Your task to perform on an android device: open a bookmark in the chrome app Image 0: 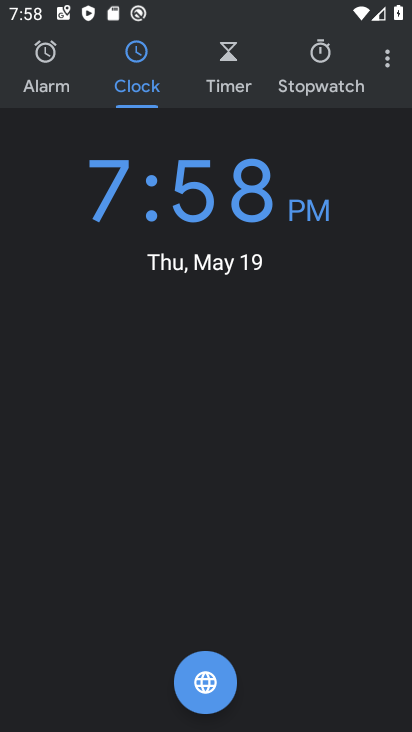
Step 0: press home button
Your task to perform on an android device: open a bookmark in the chrome app Image 1: 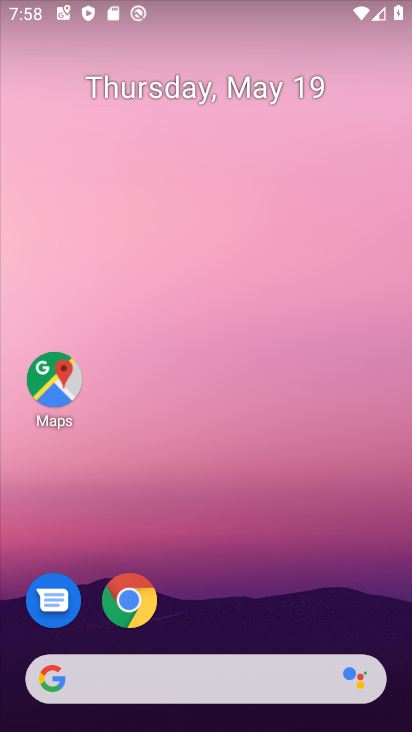
Step 1: click (132, 600)
Your task to perform on an android device: open a bookmark in the chrome app Image 2: 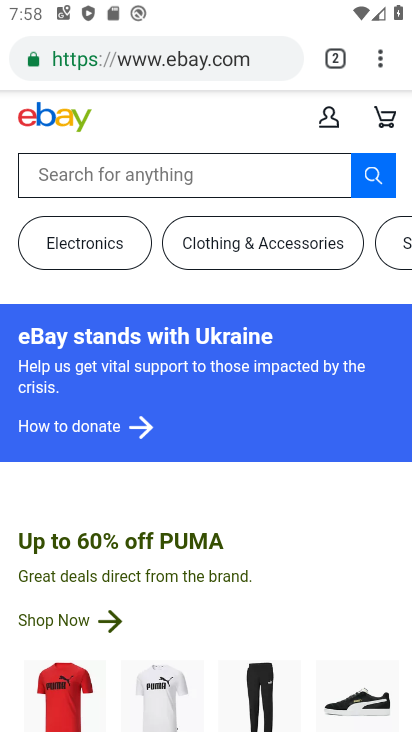
Step 2: click (381, 58)
Your task to perform on an android device: open a bookmark in the chrome app Image 3: 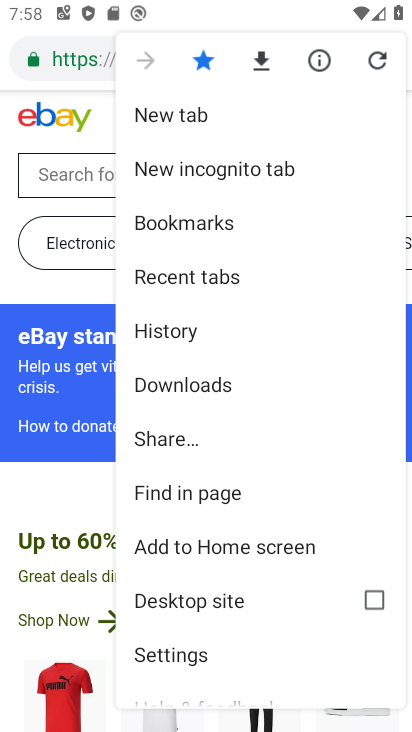
Step 3: click (176, 226)
Your task to perform on an android device: open a bookmark in the chrome app Image 4: 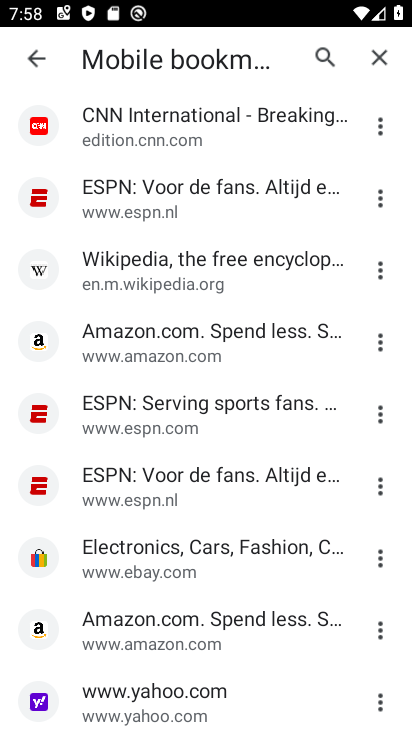
Step 4: click (165, 203)
Your task to perform on an android device: open a bookmark in the chrome app Image 5: 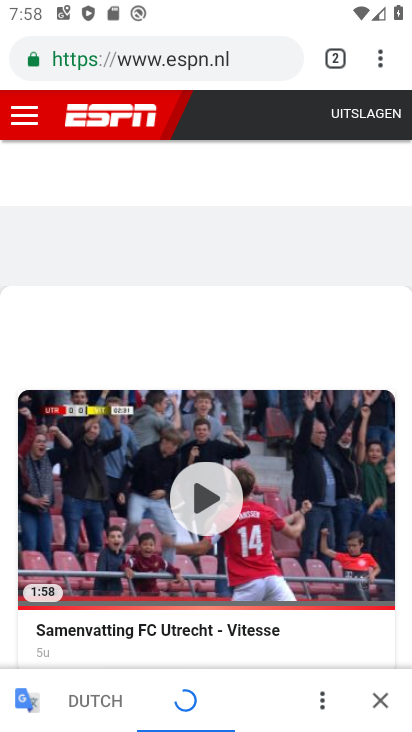
Step 5: task complete